Your task to perform on an android device: Open CNN.com Image 0: 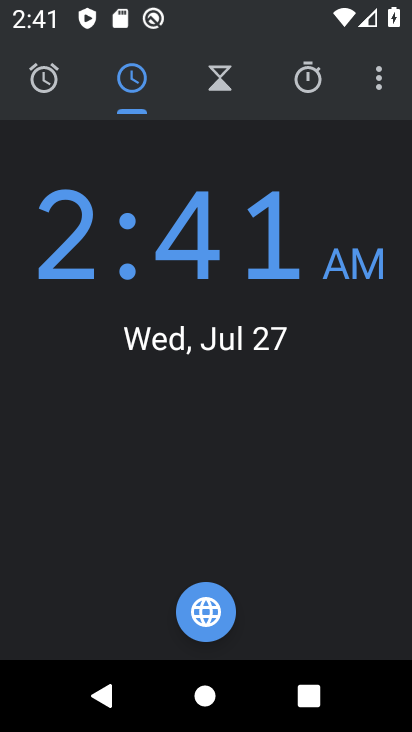
Step 0: press back button
Your task to perform on an android device: Open CNN.com Image 1: 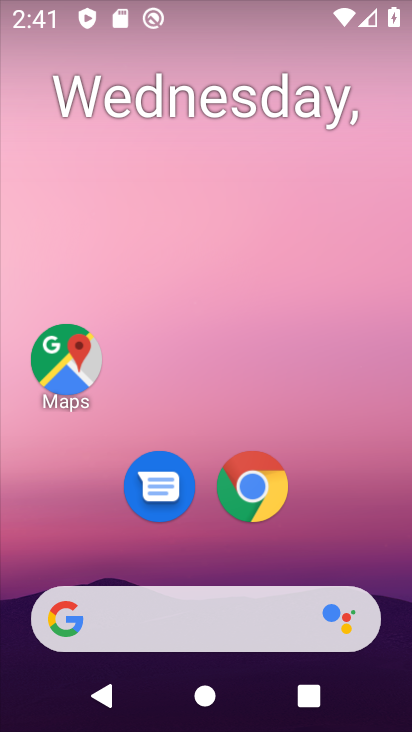
Step 1: click (249, 479)
Your task to perform on an android device: Open CNN.com Image 2: 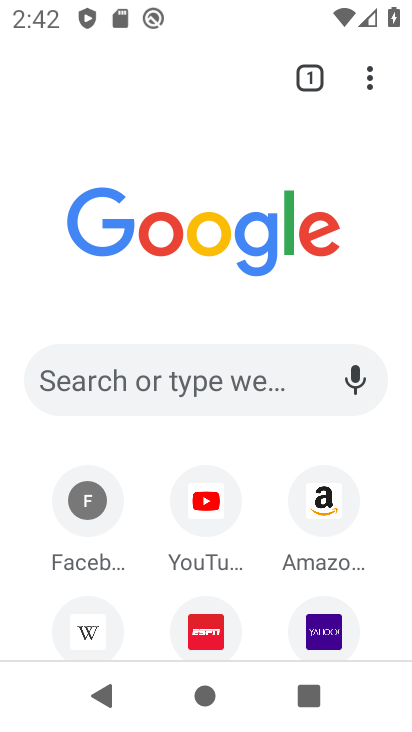
Step 2: drag from (175, 631) to (272, 659)
Your task to perform on an android device: Open CNN.com Image 3: 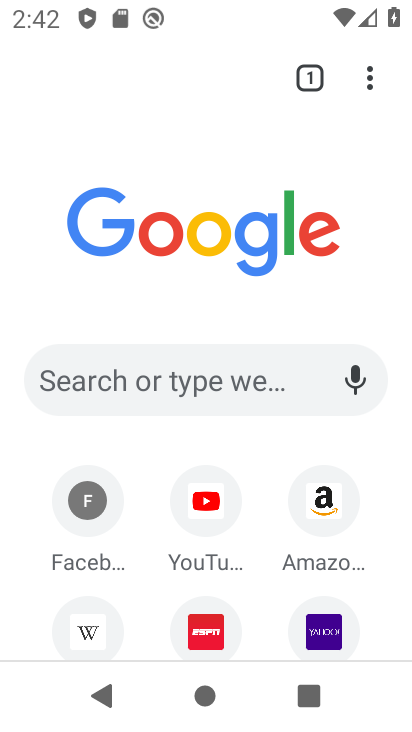
Step 3: click (148, 388)
Your task to perform on an android device: Open CNN.com Image 4: 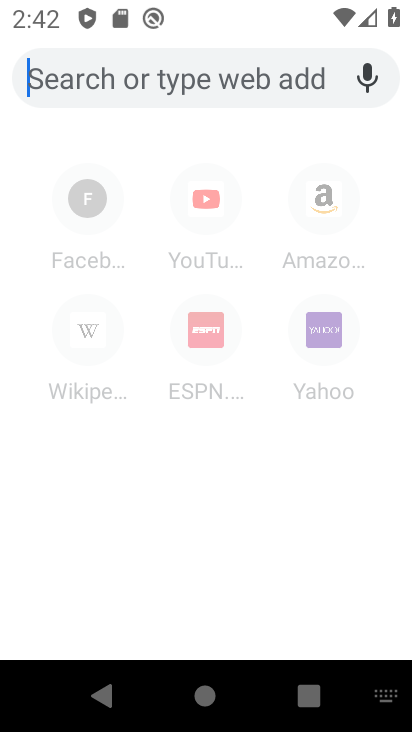
Step 4: type "cnn.com"
Your task to perform on an android device: Open CNN.com Image 5: 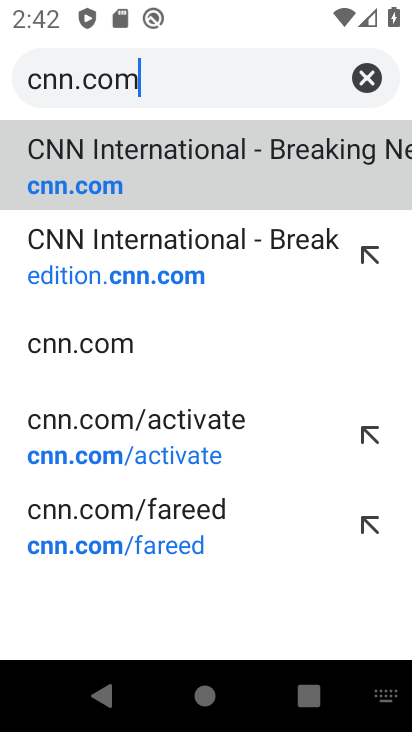
Step 5: click (210, 169)
Your task to perform on an android device: Open CNN.com Image 6: 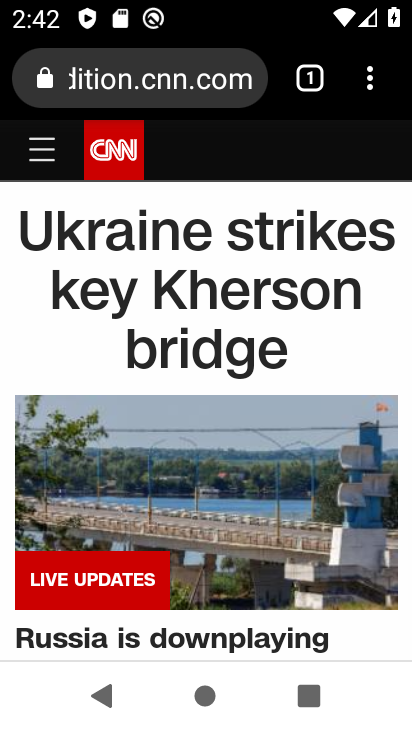
Step 6: task complete